Your task to perform on an android device: turn on javascript in the chrome app Image 0: 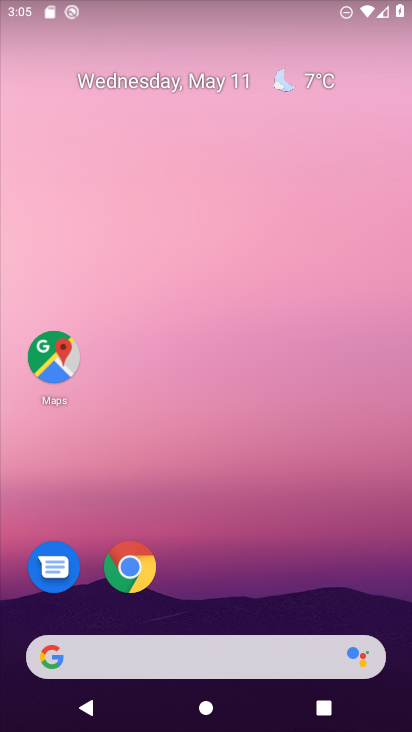
Step 0: click (140, 569)
Your task to perform on an android device: turn on javascript in the chrome app Image 1: 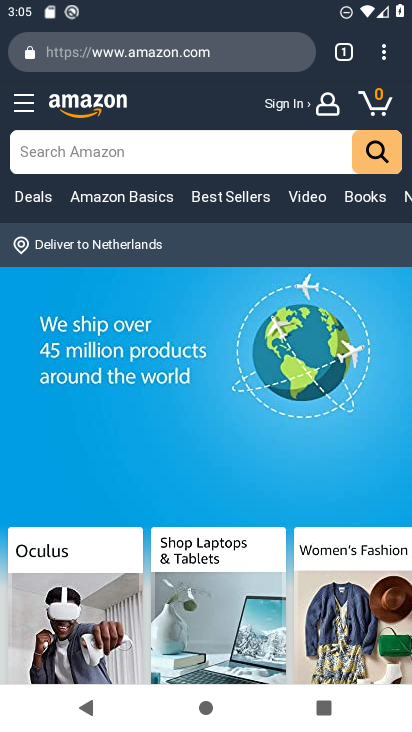
Step 1: click (386, 56)
Your task to perform on an android device: turn on javascript in the chrome app Image 2: 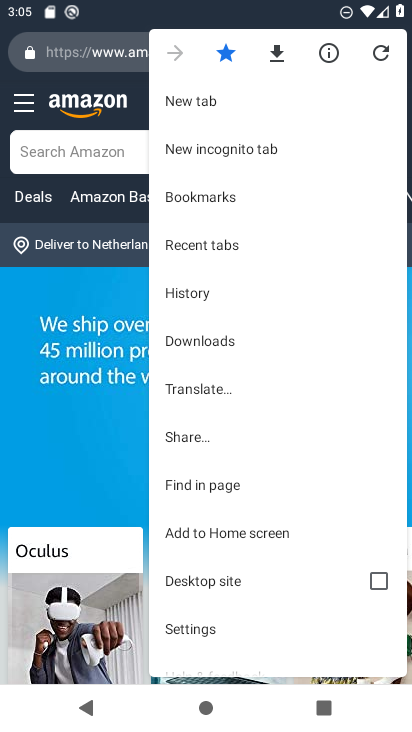
Step 2: click (228, 636)
Your task to perform on an android device: turn on javascript in the chrome app Image 3: 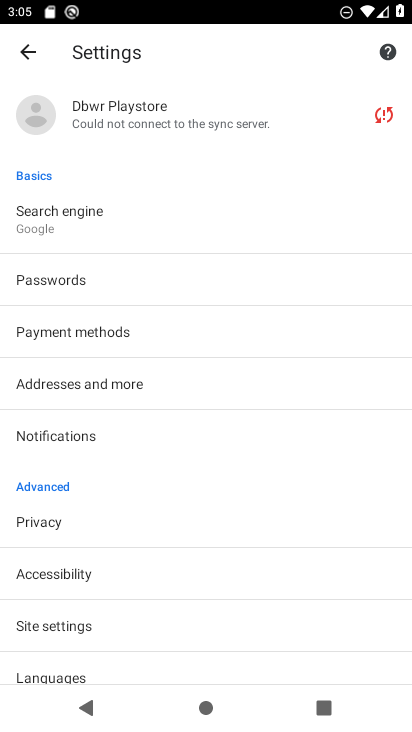
Step 3: drag from (170, 598) to (129, 440)
Your task to perform on an android device: turn on javascript in the chrome app Image 4: 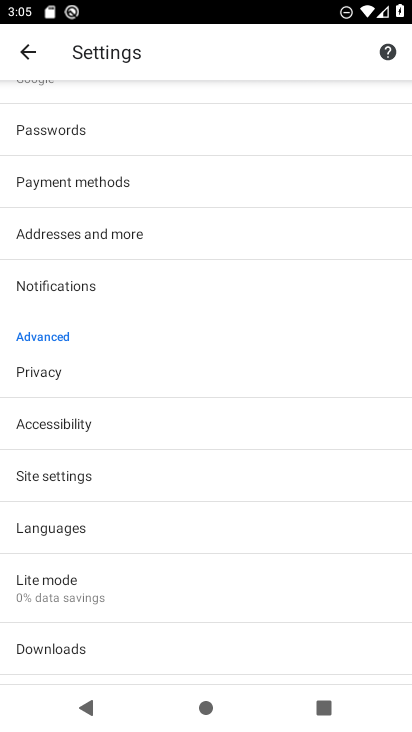
Step 4: drag from (203, 556) to (162, 417)
Your task to perform on an android device: turn on javascript in the chrome app Image 5: 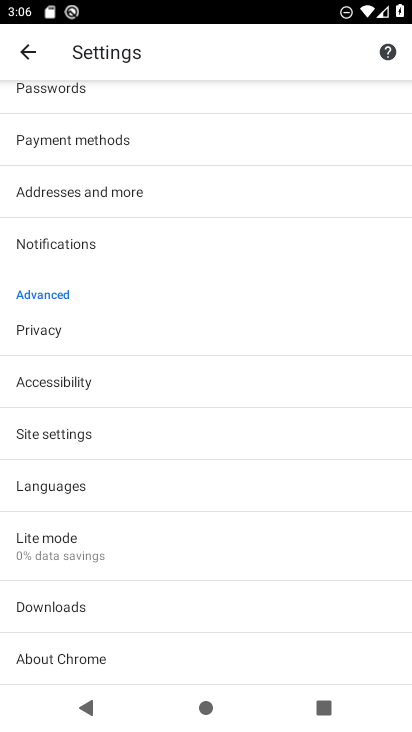
Step 5: click (61, 438)
Your task to perform on an android device: turn on javascript in the chrome app Image 6: 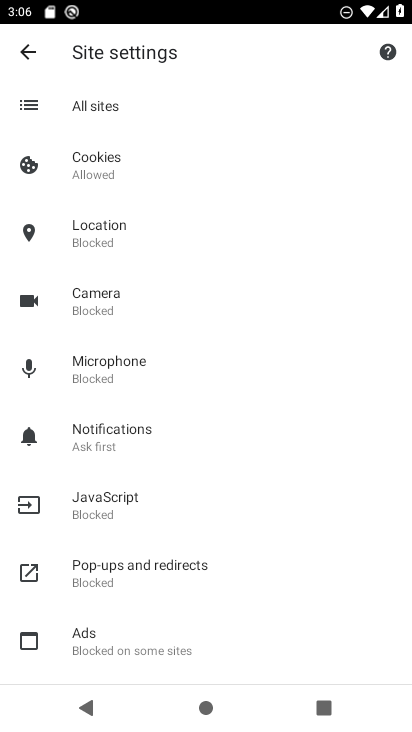
Step 6: click (115, 507)
Your task to perform on an android device: turn on javascript in the chrome app Image 7: 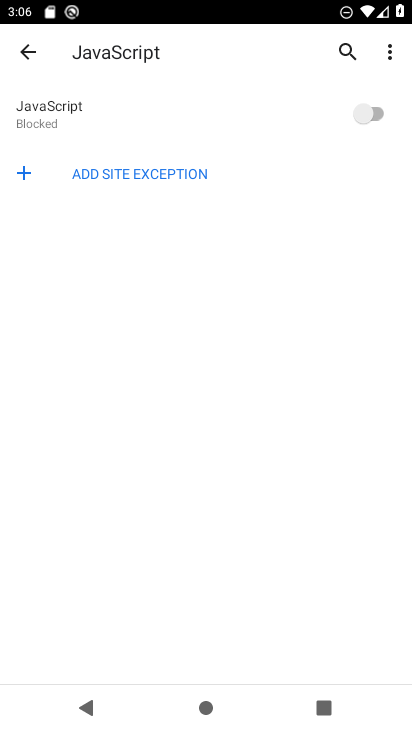
Step 7: click (359, 114)
Your task to perform on an android device: turn on javascript in the chrome app Image 8: 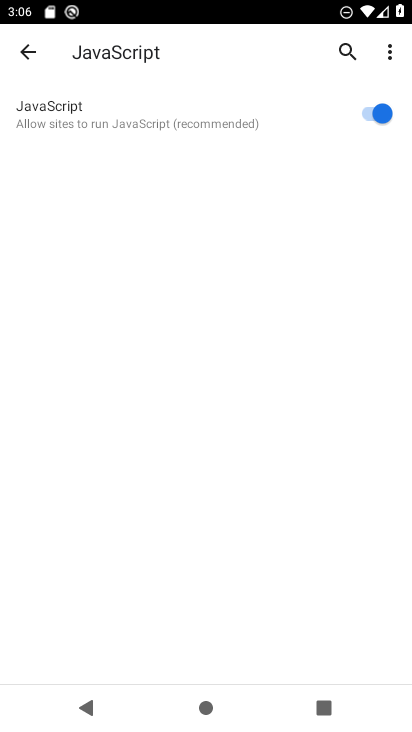
Step 8: task complete